Your task to perform on an android device: turn notification dots on Image 0: 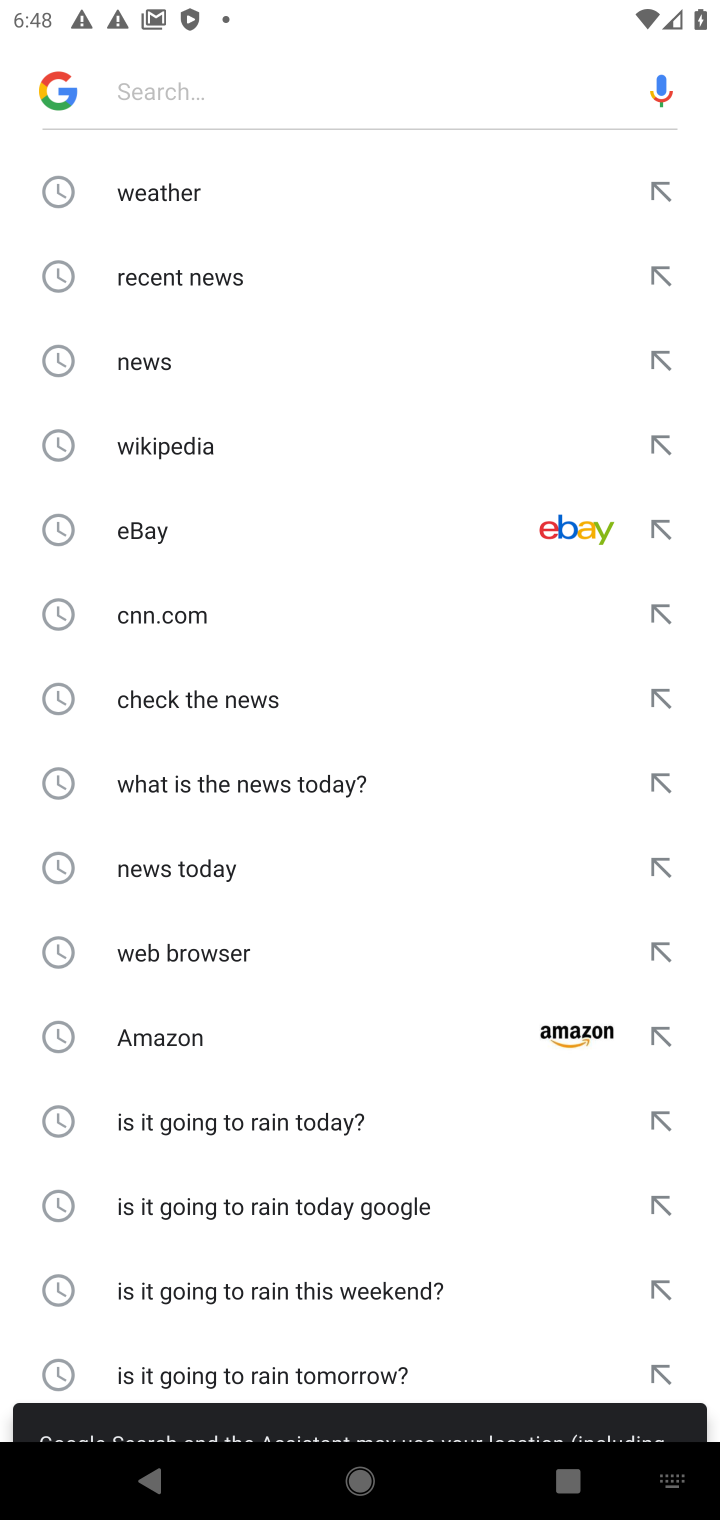
Step 0: press home button
Your task to perform on an android device: turn notification dots on Image 1: 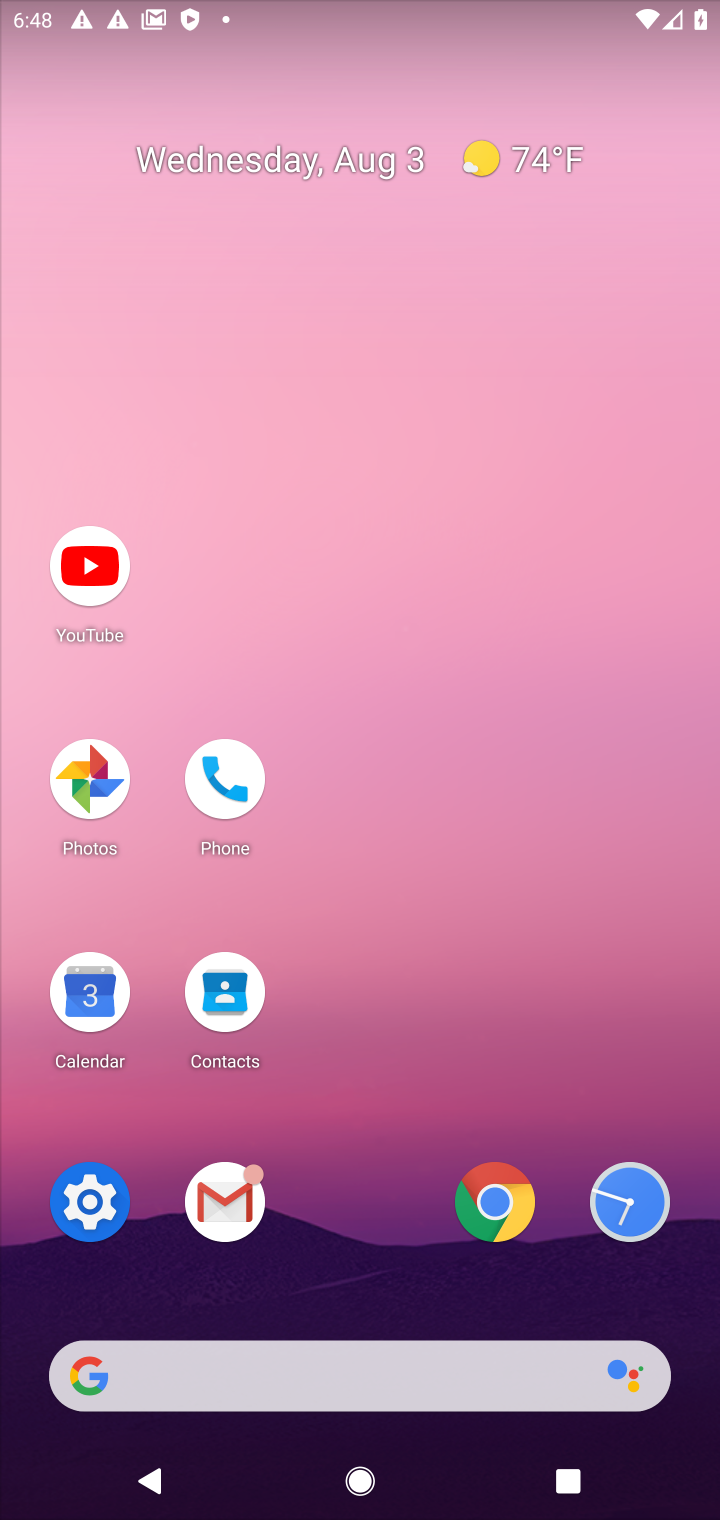
Step 1: click (96, 1198)
Your task to perform on an android device: turn notification dots on Image 2: 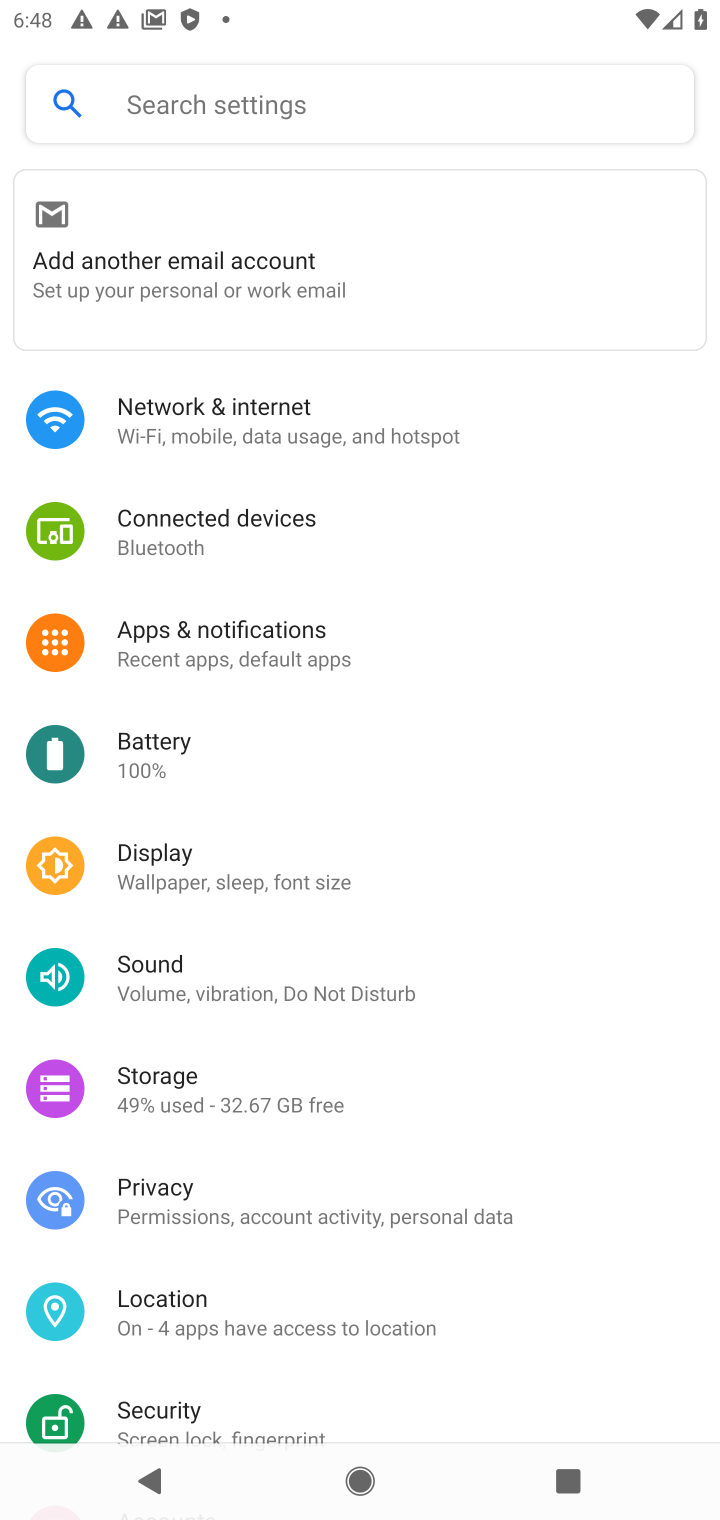
Step 2: click (213, 627)
Your task to perform on an android device: turn notification dots on Image 3: 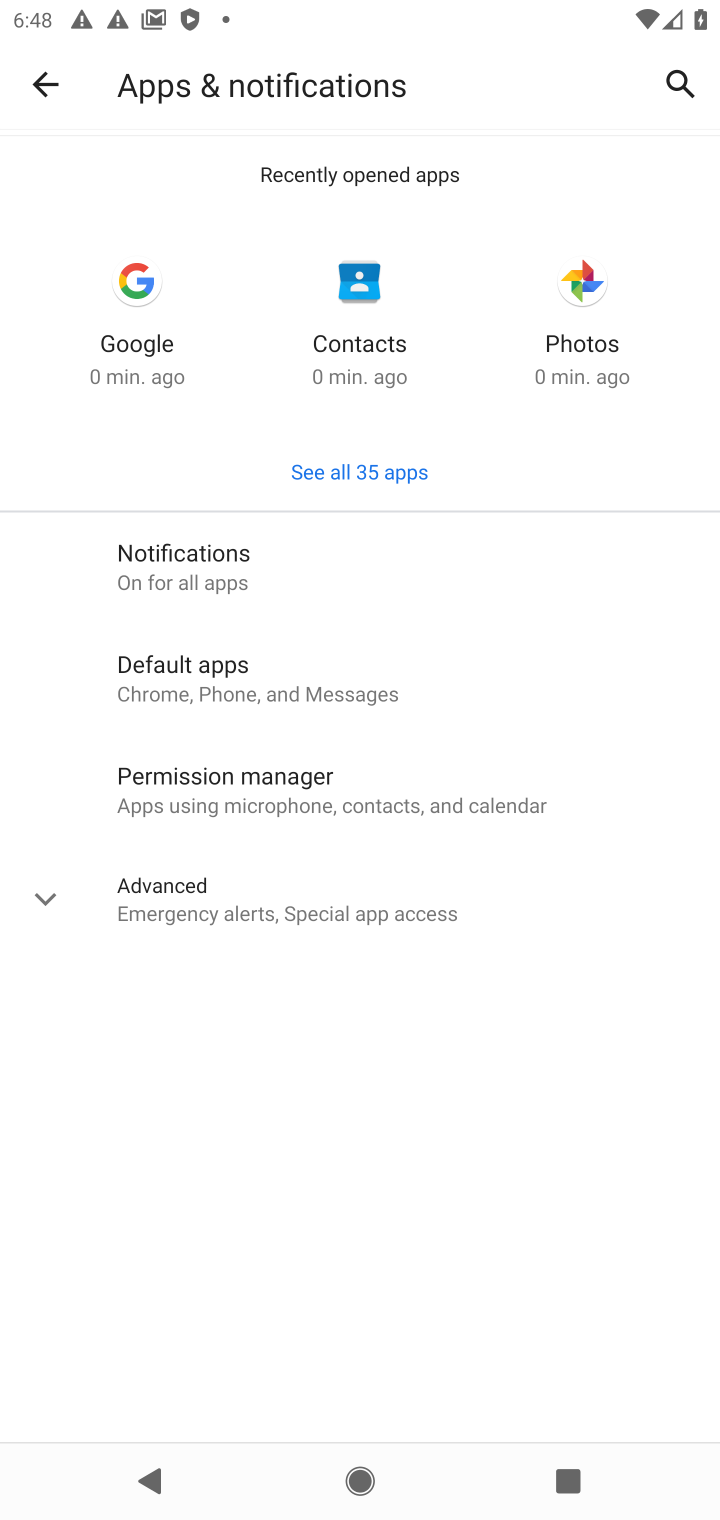
Step 3: click (202, 551)
Your task to perform on an android device: turn notification dots on Image 4: 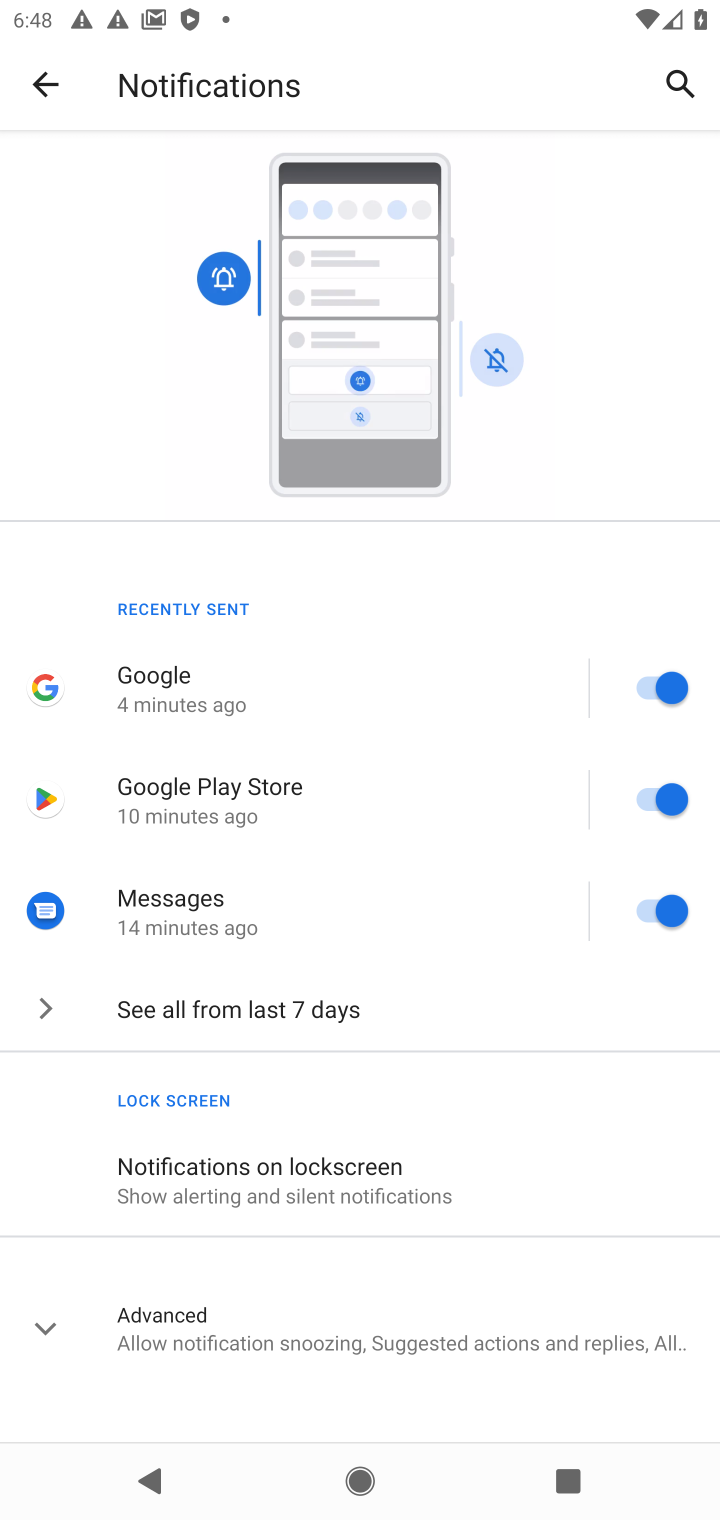
Step 4: click (40, 1334)
Your task to perform on an android device: turn notification dots on Image 5: 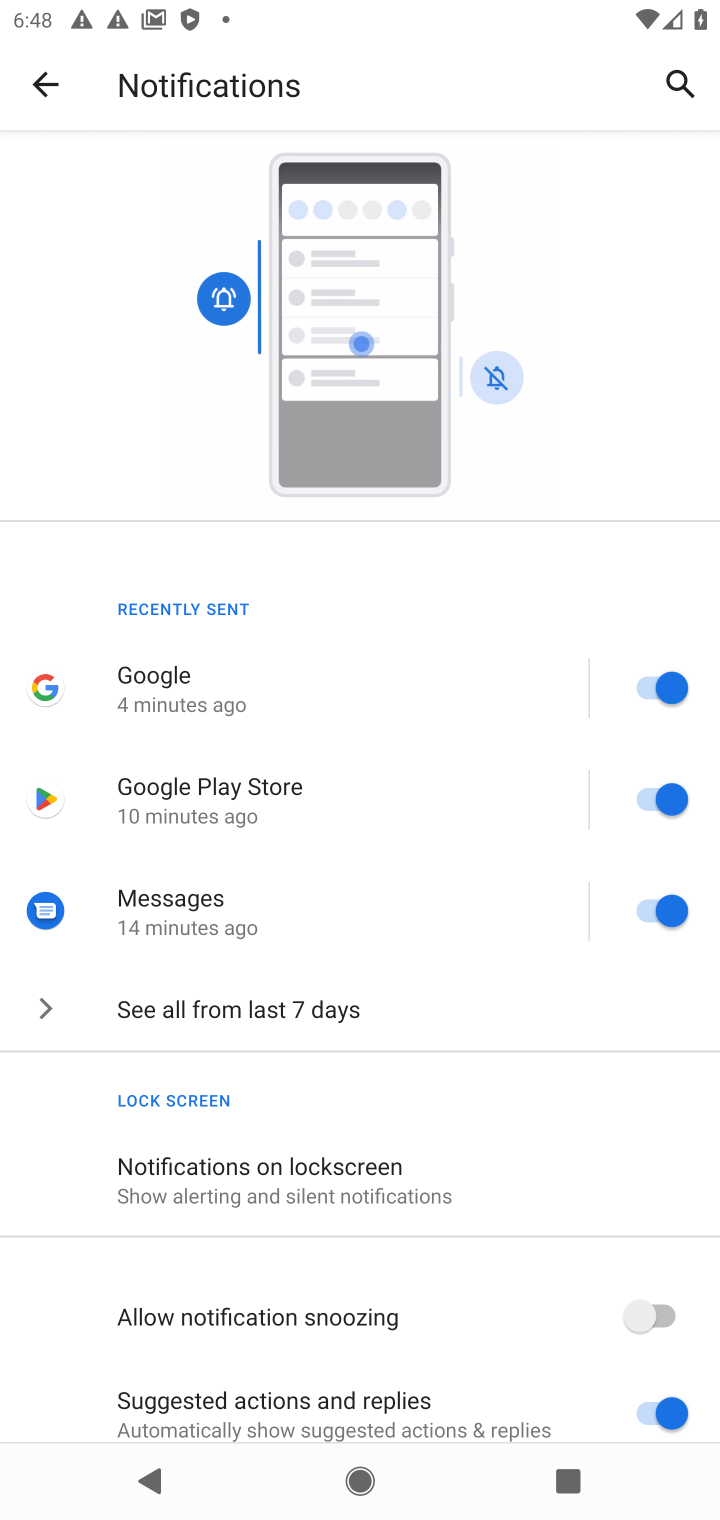
Step 5: click (426, 365)
Your task to perform on an android device: turn notification dots on Image 6: 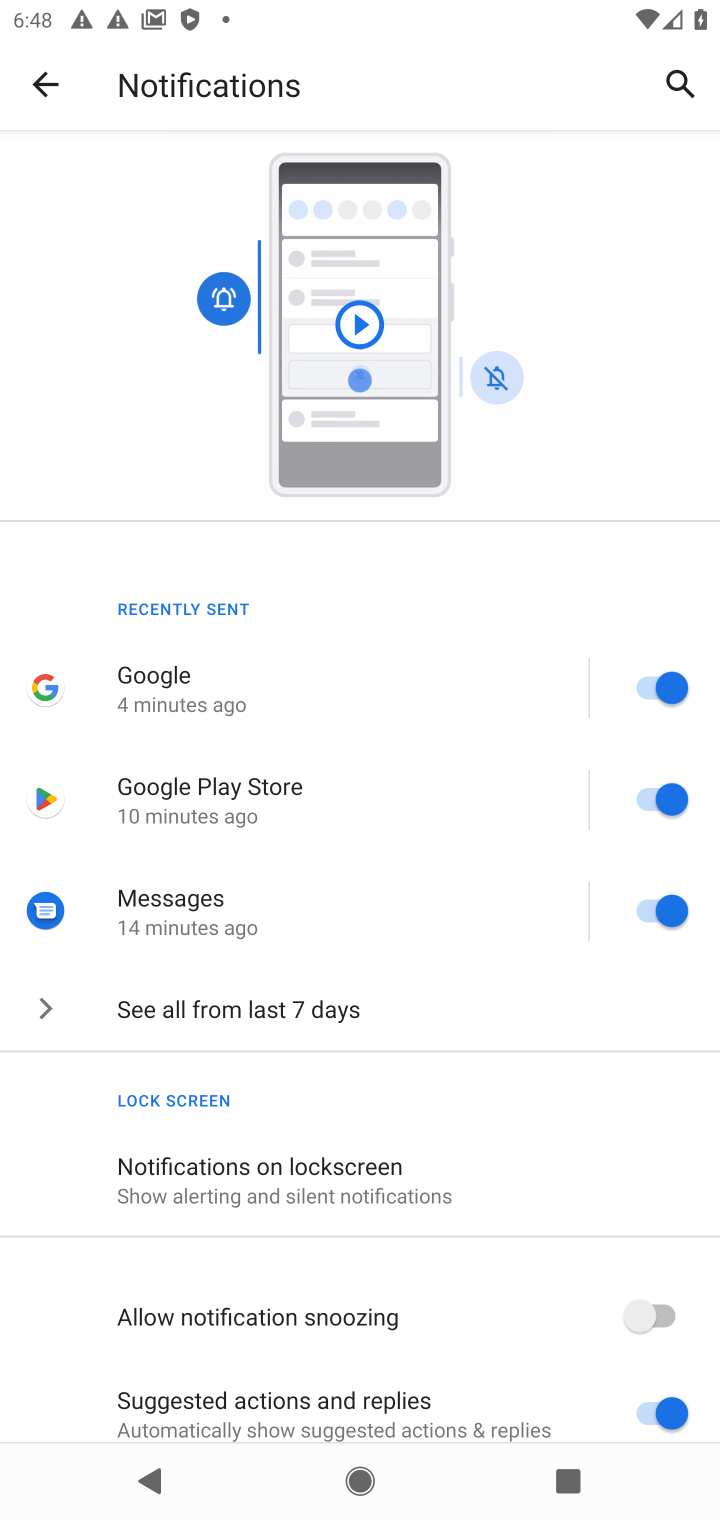
Step 6: task complete